Your task to perform on an android device: turn off sleep mode Image 0: 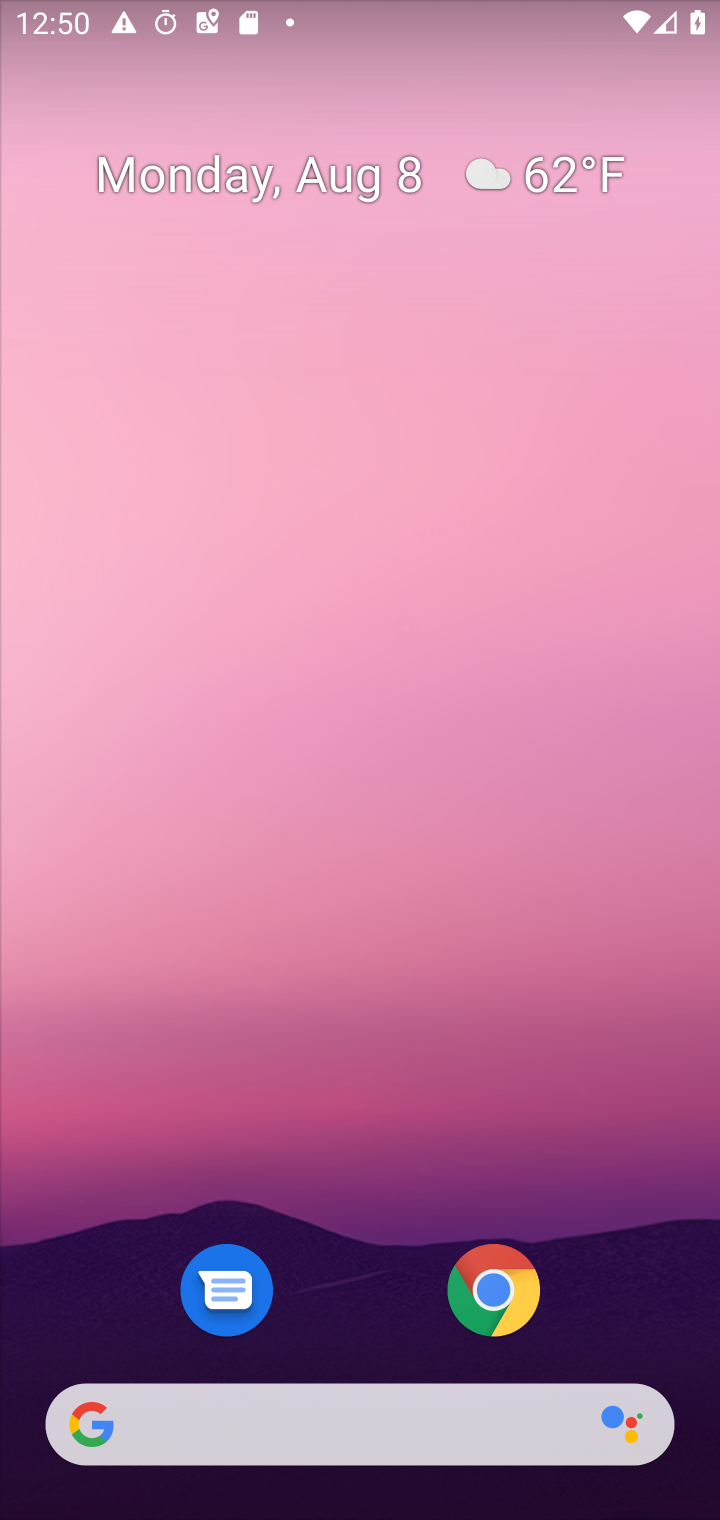
Step 0: drag from (341, 1319) to (334, 0)
Your task to perform on an android device: turn off sleep mode Image 1: 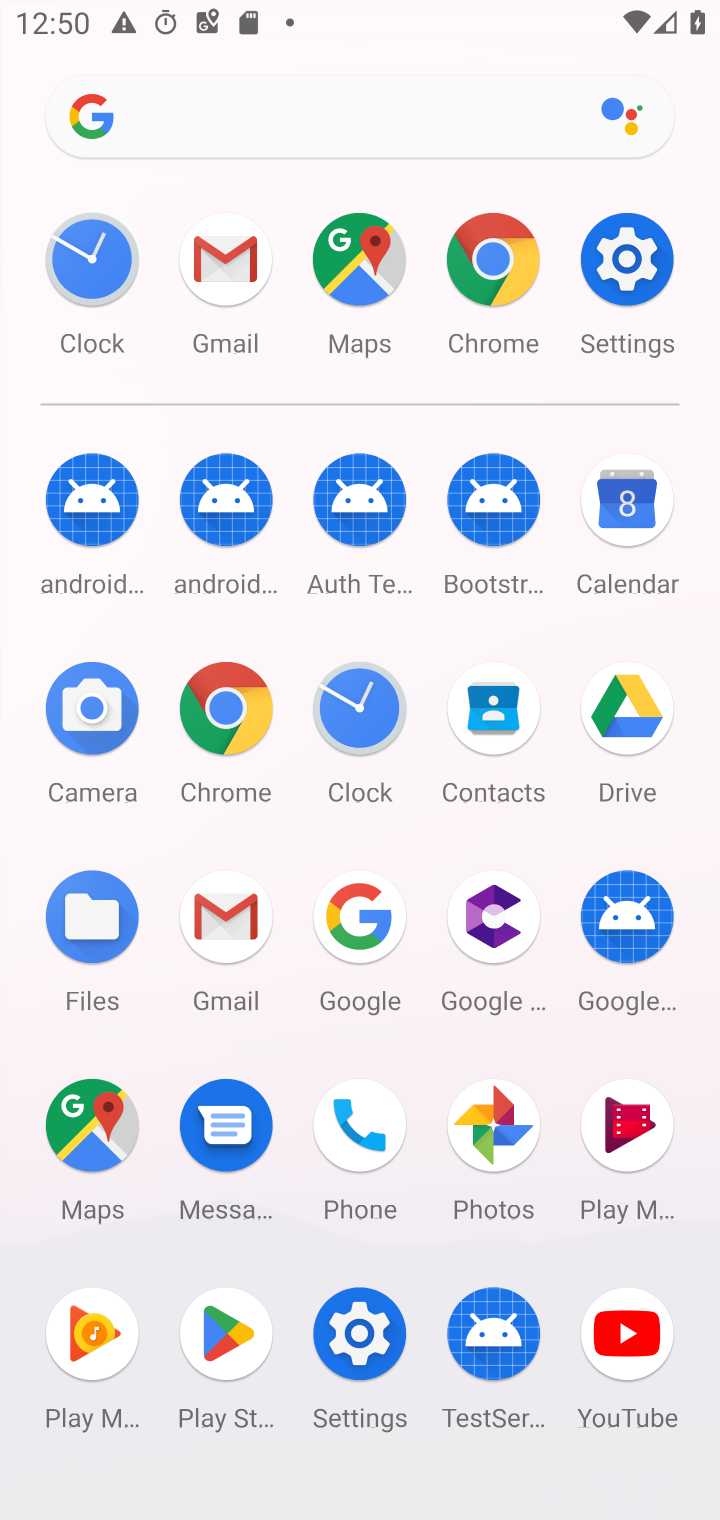
Step 1: click (355, 1346)
Your task to perform on an android device: turn off sleep mode Image 2: 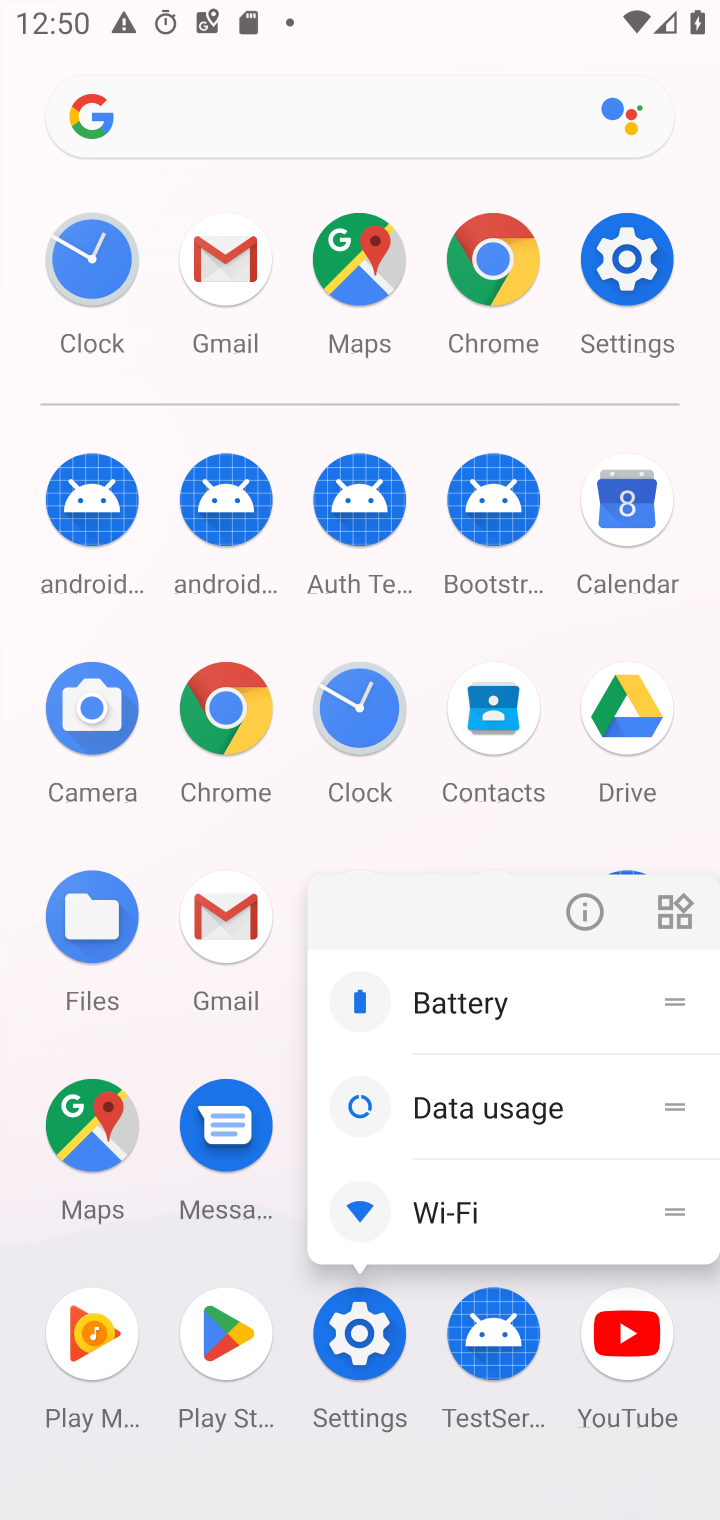
Step 2: click (350, 1319)
Your task to perform on an android device: turn off sleep mode Image 3: 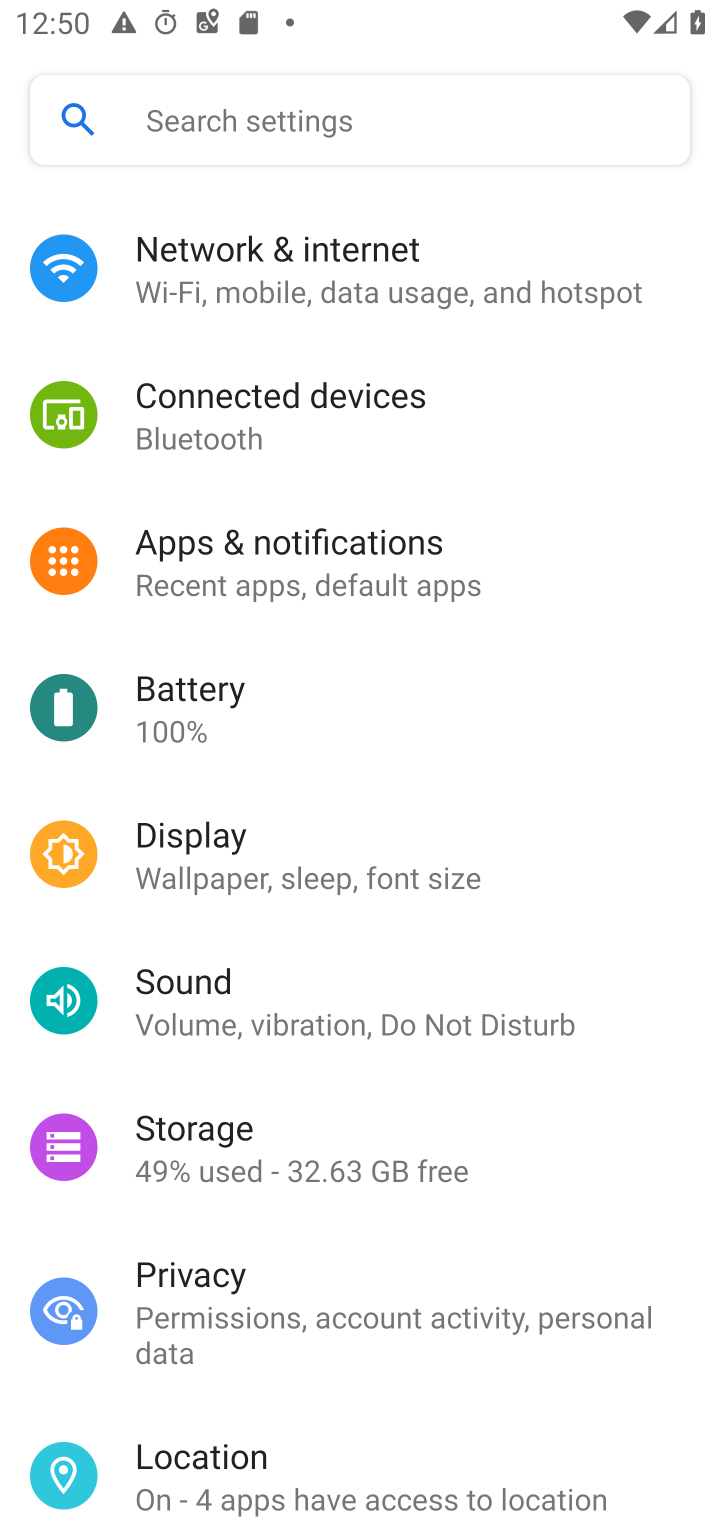
Step 3: click (320, 113)
Your task to perform on an android device: turn off sleep mode Image 4: 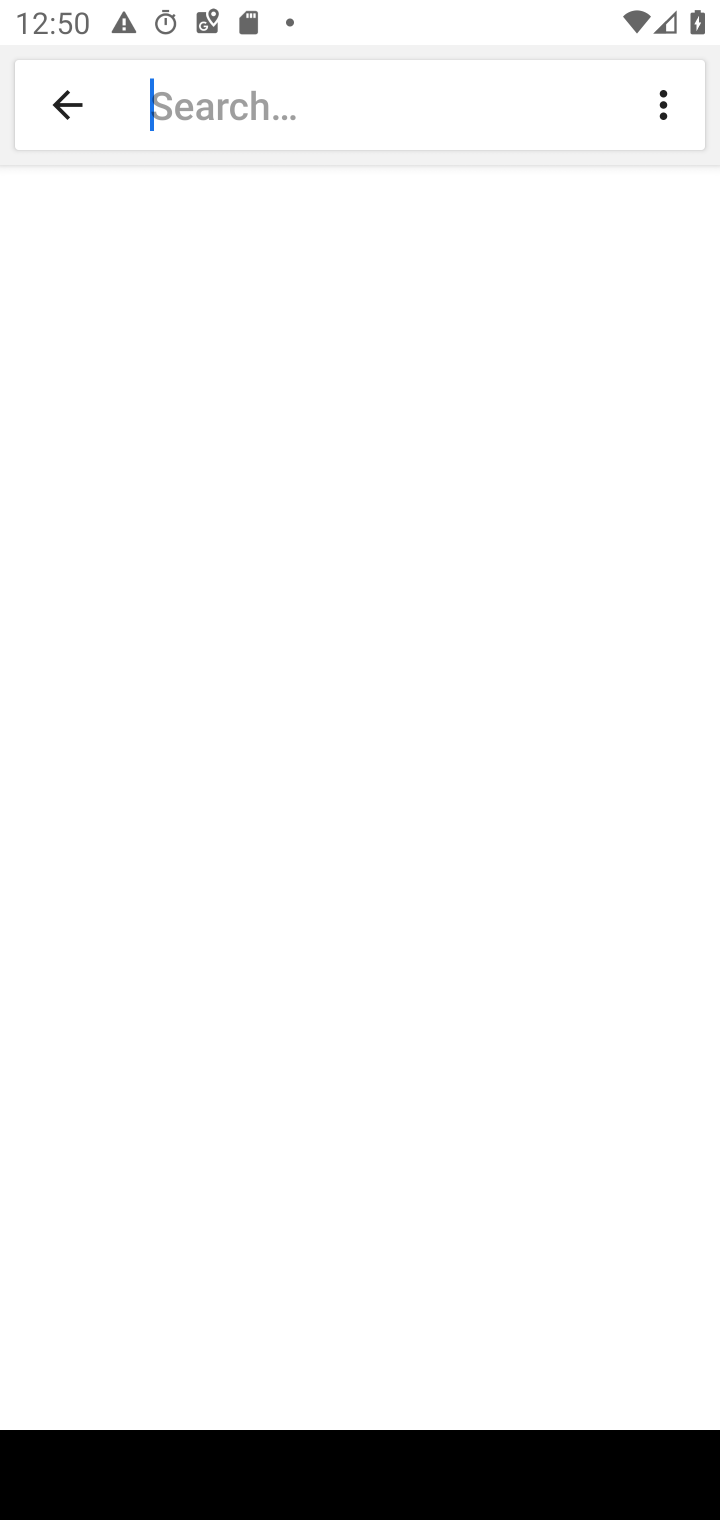
Step 4: type "sleep mode"
Your task to perform on an android device: turn off sleep mode Image 5: 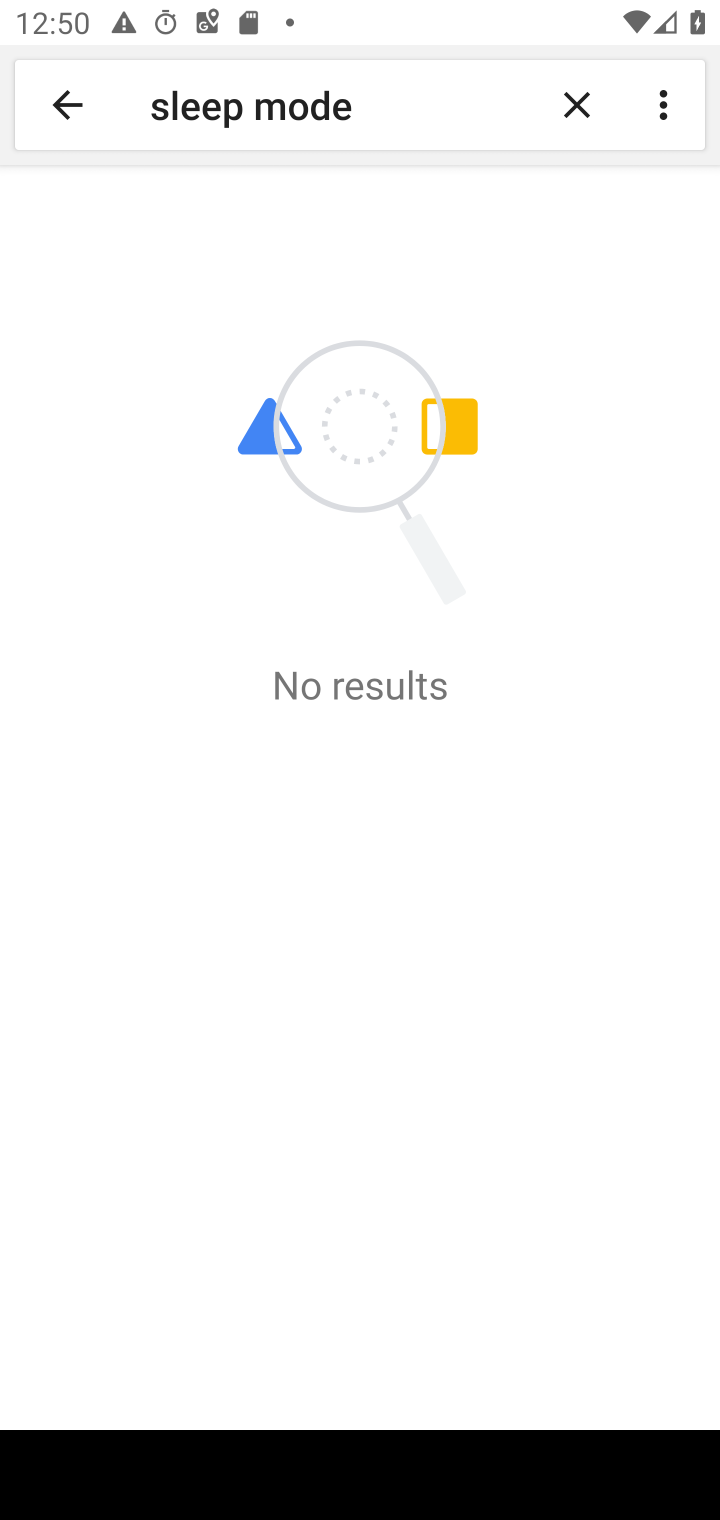
Step 5: task complete